Your task to perform on an android device: What's the weather? Image 0: 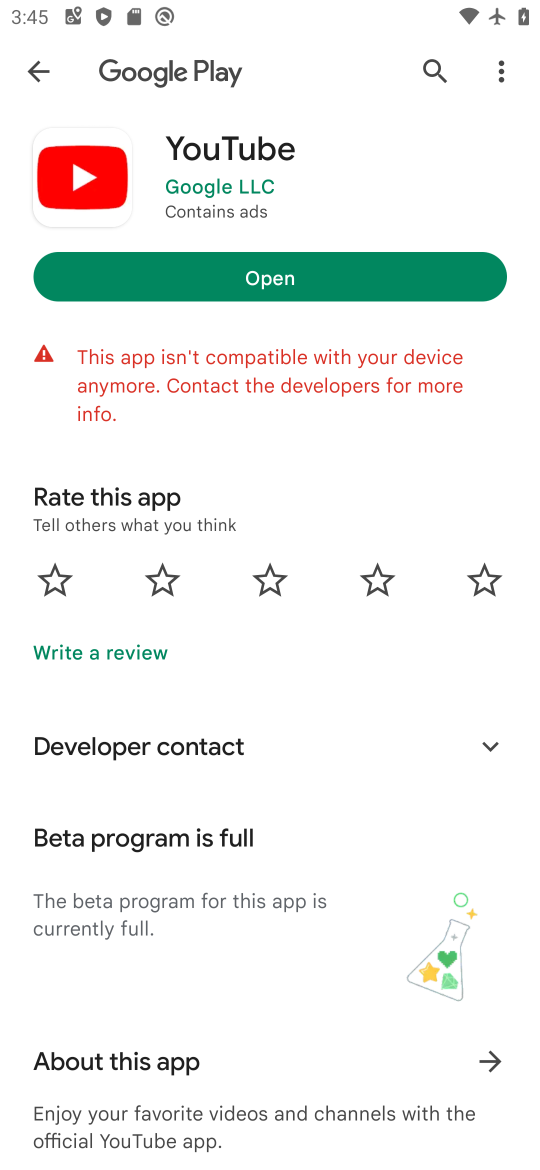
Step 0: press home button
Your task to perform on an android device: What's the weather? Image 1: 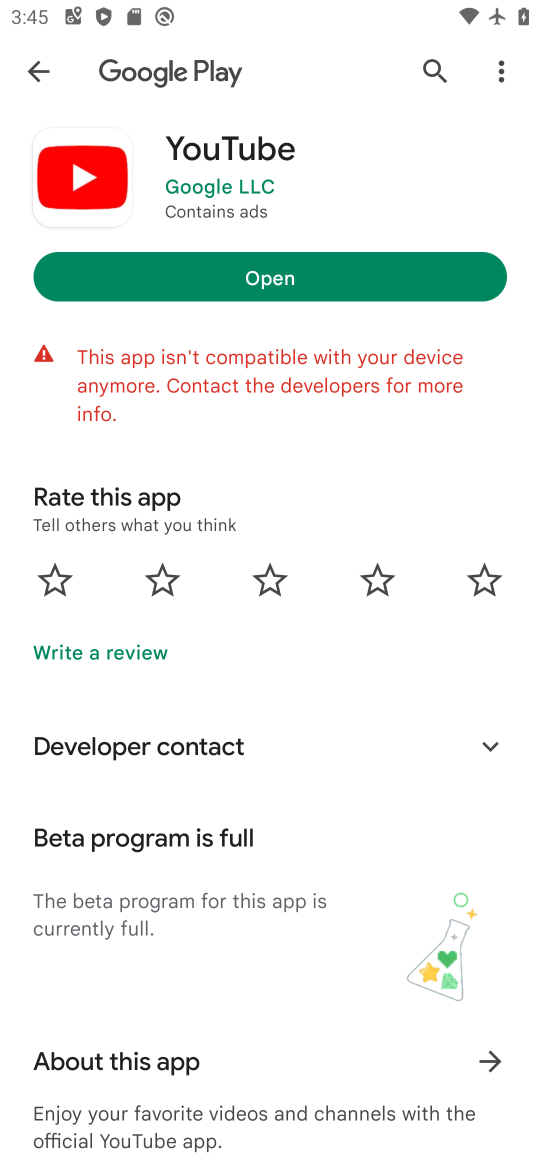
Step 1: press home button
Your task to perform on an android device: What's the weather? Image 2: 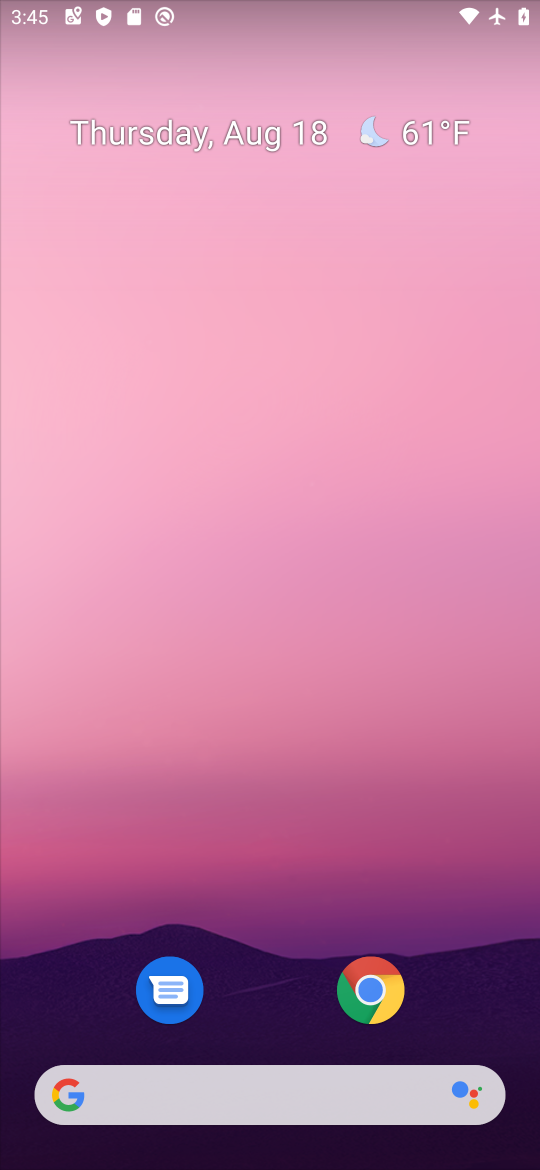
Step 2: drag from (339, 824) to (394, 78)
Your task to perform on an android device: What's the weather? Image 3: 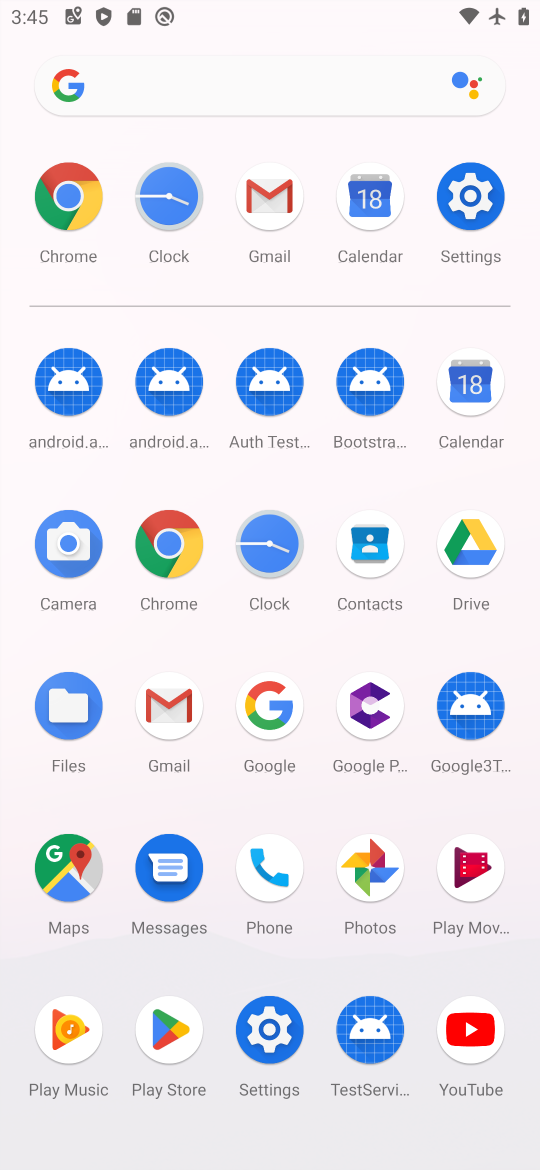
Step 3: press home button
Your task to perform on an android device: What's the weather? Image 4: 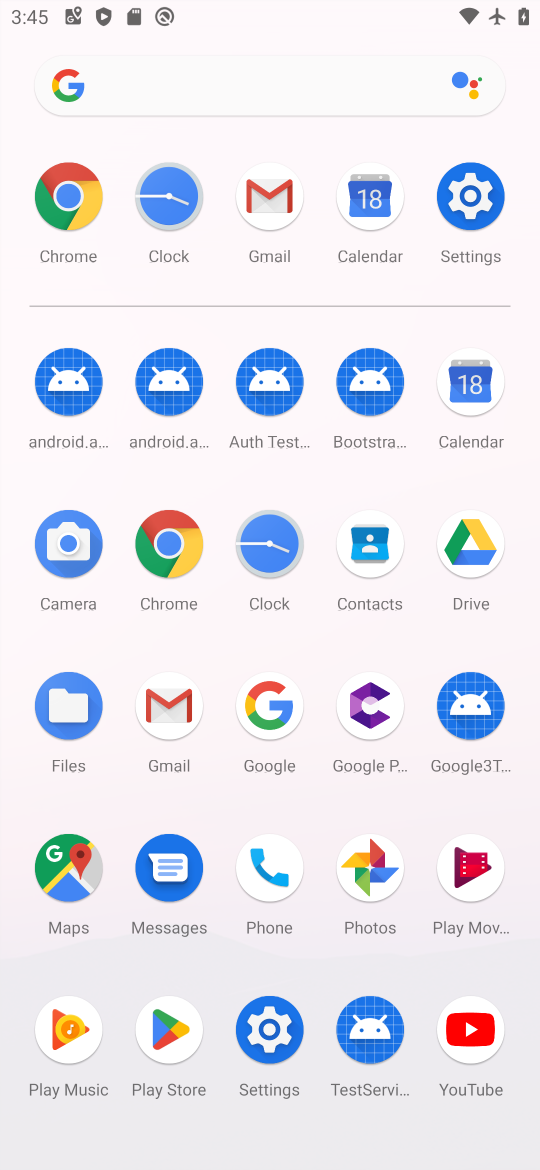
Step 4: press home button
Your task to perform on an android device: What's the weather? Image 5: 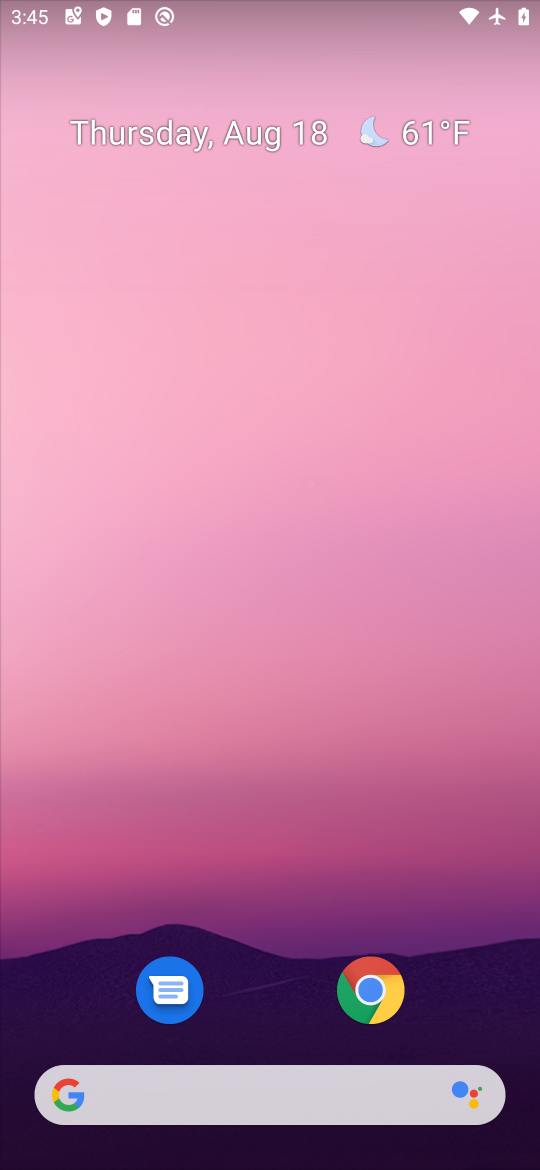
Step 5: click (432, 132)
Your task to perform on an android device: What's the weather? Image 6: 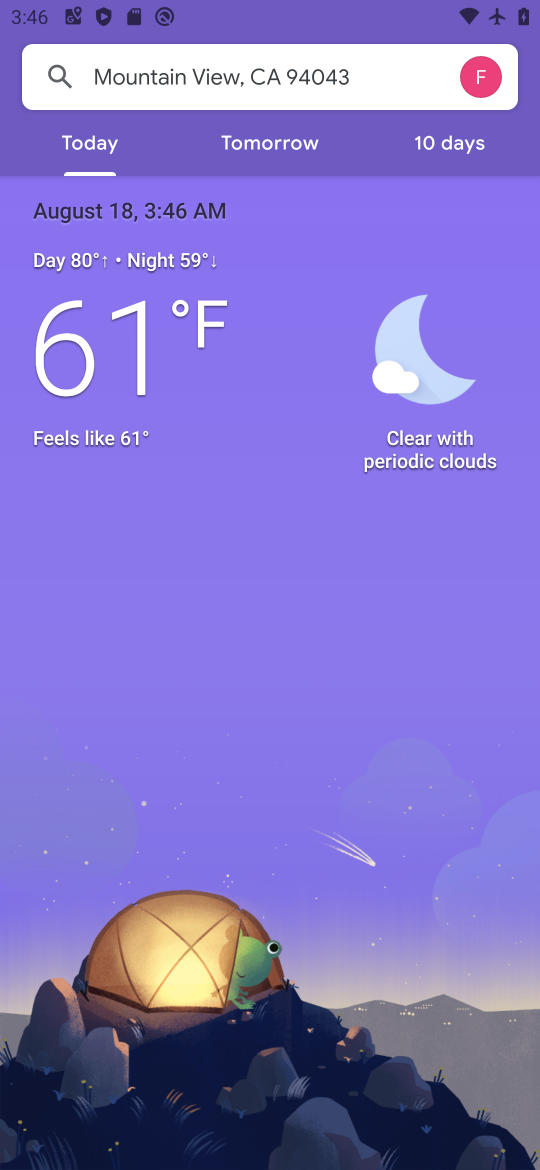
Step 6: click (458, 145)
Your task to perform on an android device: What's the weather? Image 7: 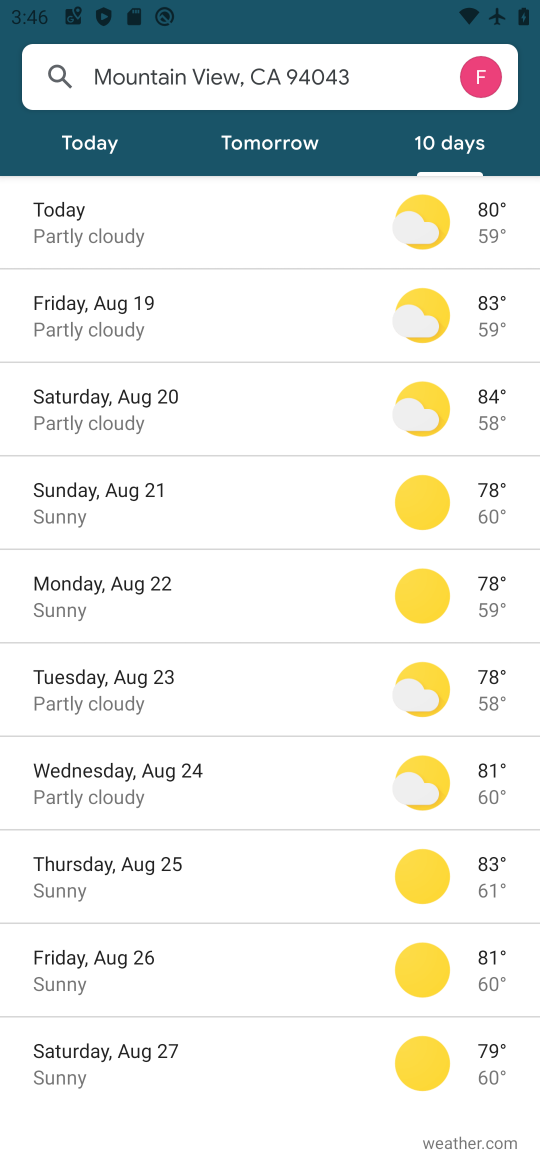
Step 7: task complete